Your task to perform on an android device: Go to sound settings Image 0: 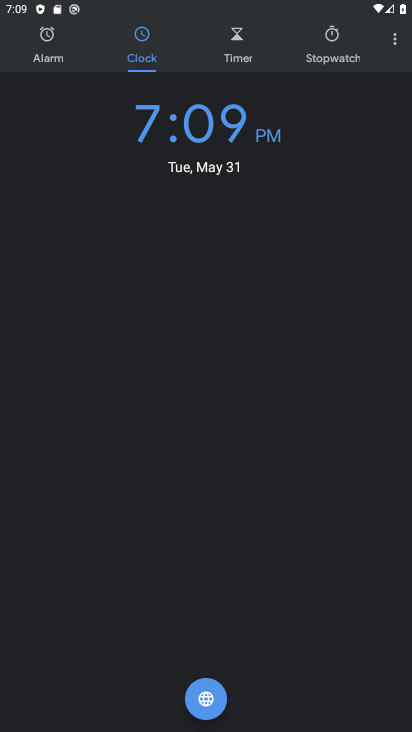
Step 0: press home button
Your task to perform on an android device: Go to sound settings Image 1: 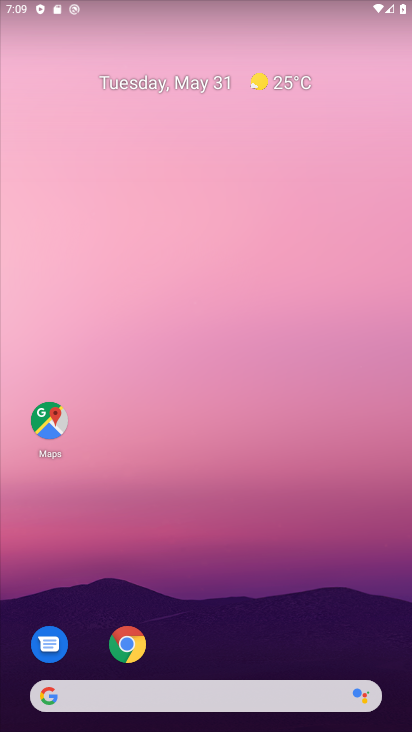
Step 1: drag from (256, 716) to (243, 235)
Your task to perform on an android device: Go to sound settings Image 2: 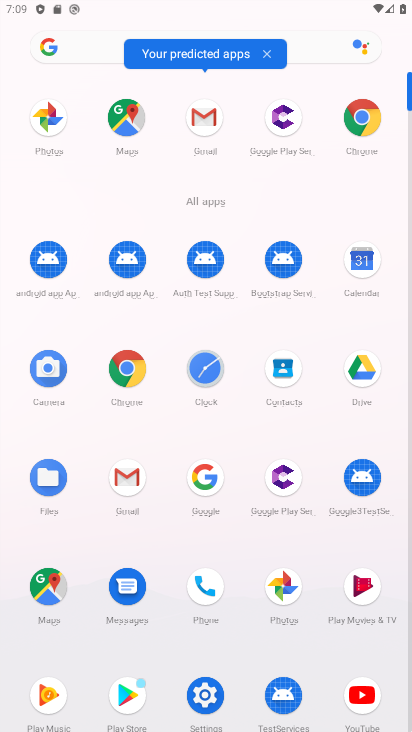
Step 2: click (206, 693)
Your task to perform on an android device: Go to sound settings Image 3: 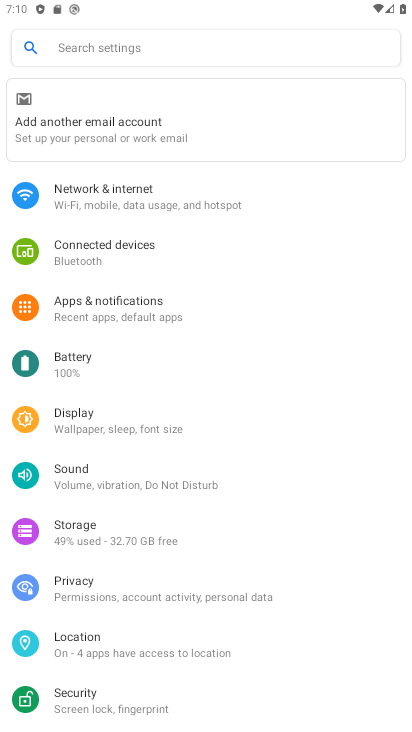
Step 3: click (105, 470)
Your task to perform on an android device: Go to sound settings Image 4: 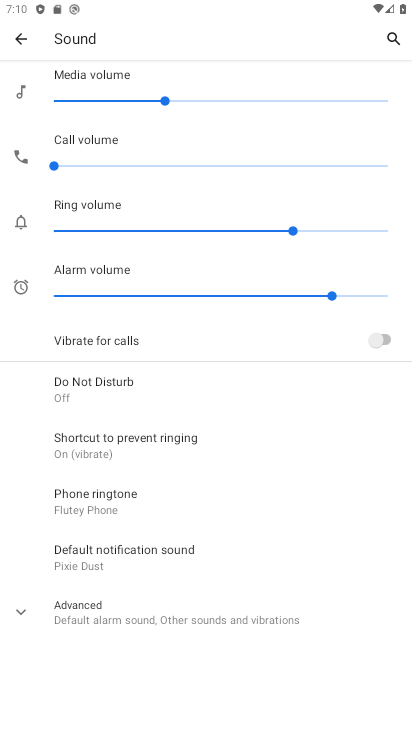
Step 4: task complete